Your task to perform on an android device: toggle translation in the chrome app Image 0: 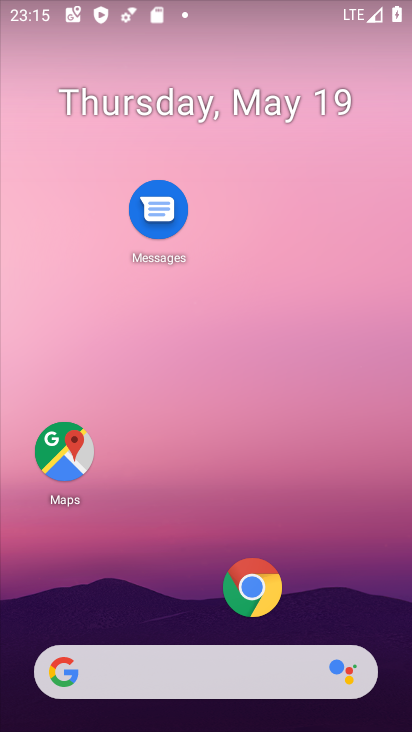
Step 0: click (241, 585)
Your task to perform on an android device: toggle translation in the chrome app Image 1: 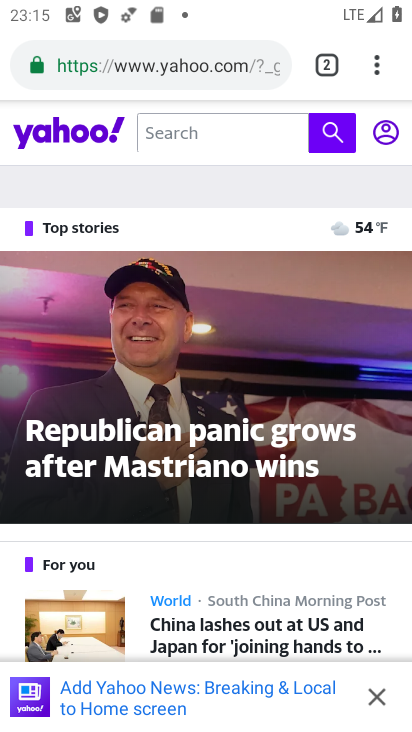
Step 1: click (371, 73)
Your task to perform on an android device: toggle translation in the chrome app Image 2: 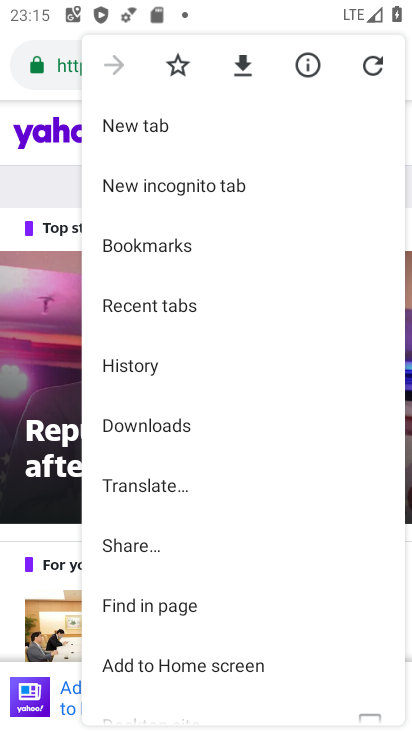
Step 2: drag from (133, 658) to (149, 247)
Your task to perform on an android device: toggle translation in the chrome app Image 3: 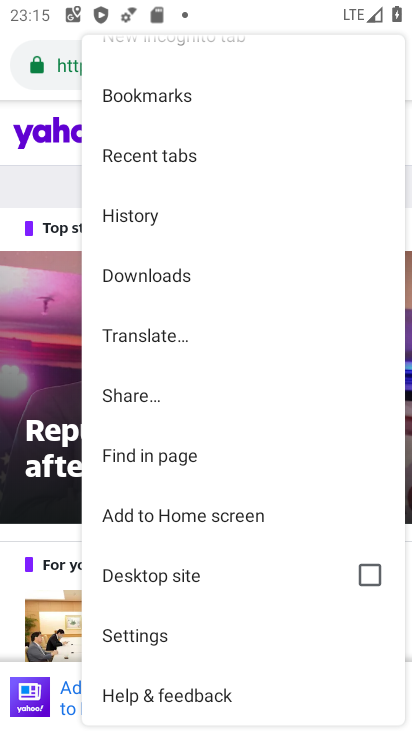
Step 3: click (178, 650)
Your task to perform on an android device: toggle translation in the chrome app Image 4: 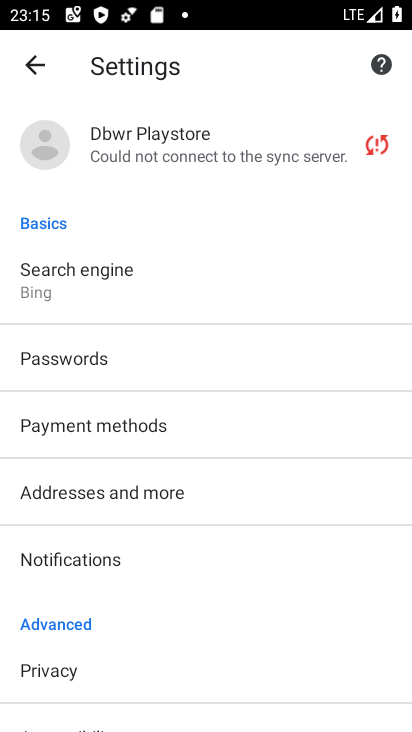
Step 4: drag from (178, 650) to (115, 240)
Your task to perform on an android device: toggle translation in the chrome app Image 5: 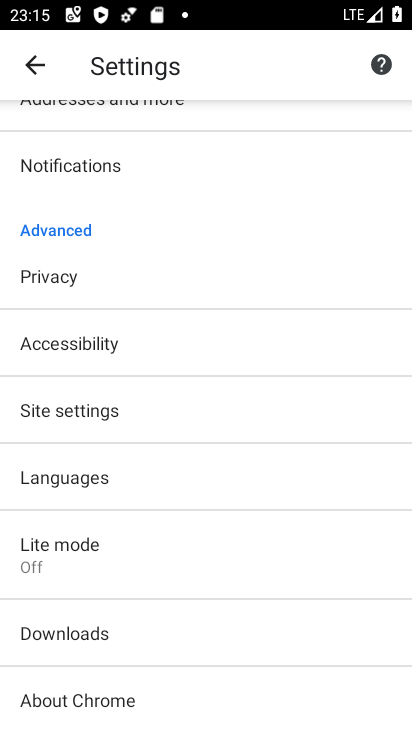
Step 5: click (124, 468)
Your task to perform on an android device: toggle translation in the chrome app Image 6: 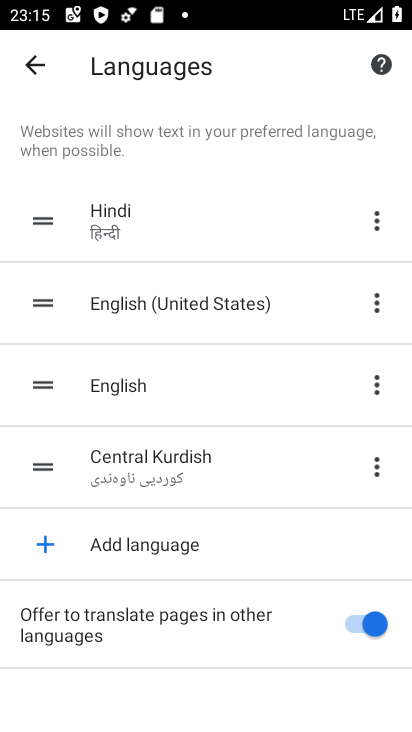
Step 6: click (371, 639)
Your task to perform on an android device: toggle translation in the chrome app Image 7: 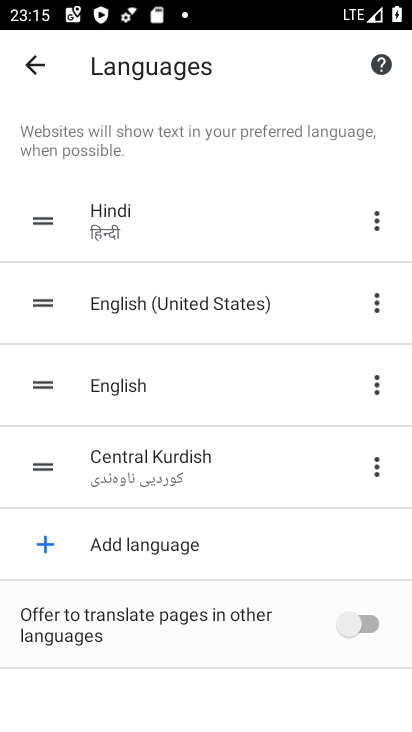
Step 7: click (371, 639)
Your task to perform on an android device: toggle translation in the chrome app Image 8: 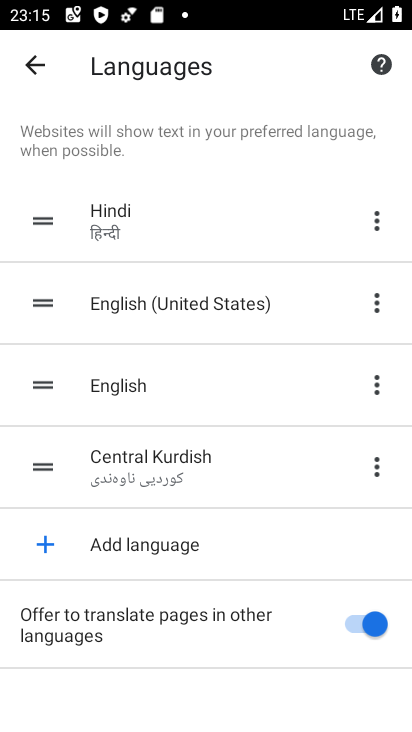
Step 8: task complete